Your task to perform on an android device: Open location settings Image 0: 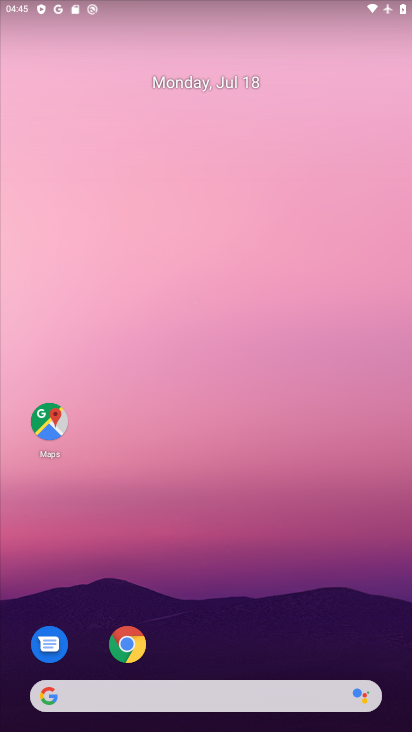
Step 0: drag from (264, 648) to (295, 177)
Your task to perform on an android device: Open location settings Image 1: 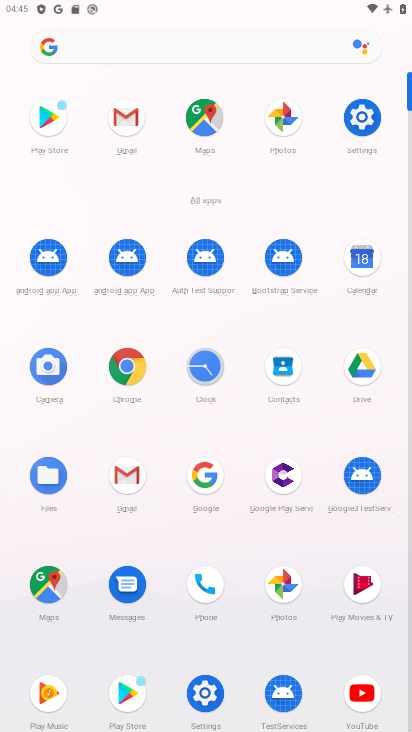
Step 1: click (355, 116)
Your task to perform on an android device: Open location settings Image 2: 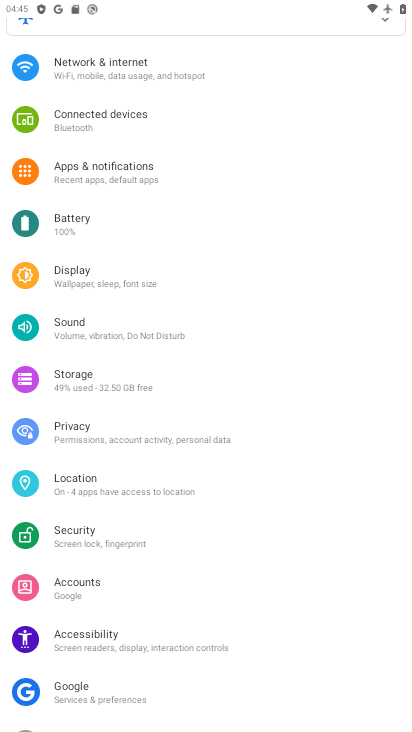
Step 2: click (75, 476)
Your task to perform on an android device: Open location settings Image 3: 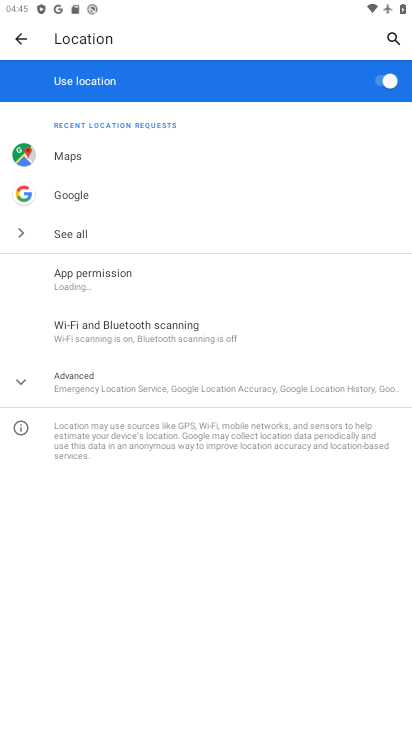
Step 3: task complete